Your task to perform on an android device: Open the calendar app, open the side menu, and click the "Day" option Image 0: 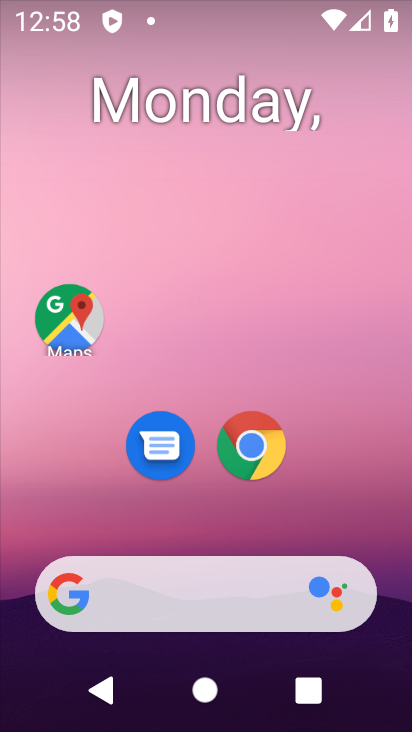
Step 0: drag from (400, 593) to (348, 186)
Your task to perform on an android device: Open the calendar app, open the side menu, and click the "Day" option Image 1: 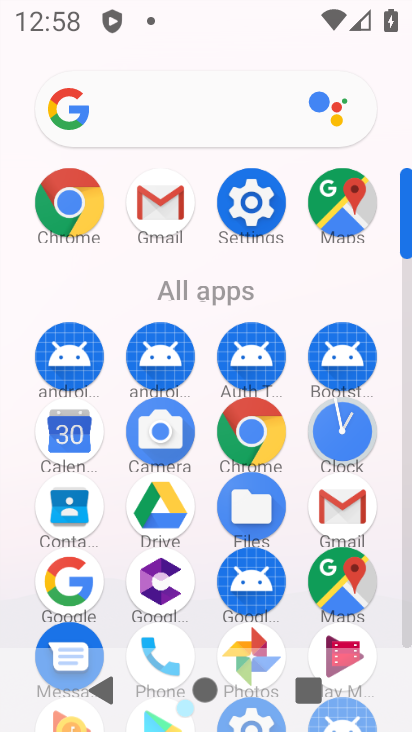
Step 1: click (66, 426)
Your task to perform on an android device: Open the calendar app, open the side menu, and click the "Day" option Image 2: 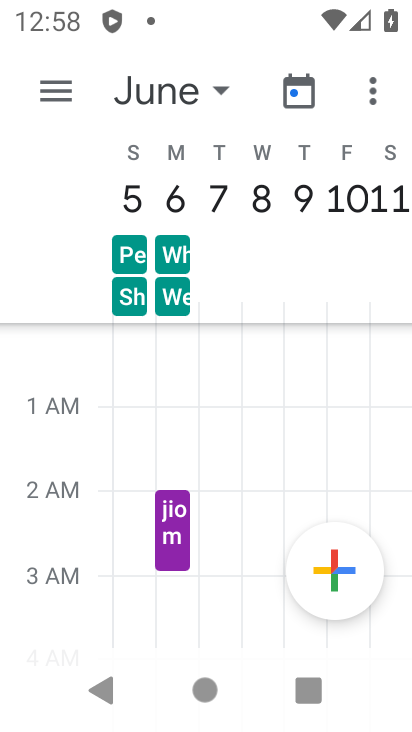
Step 2: click (52, 93)
Your task to perform on an android device: Open the calendar app, open the side menu, and click the "Day" option Image 3: 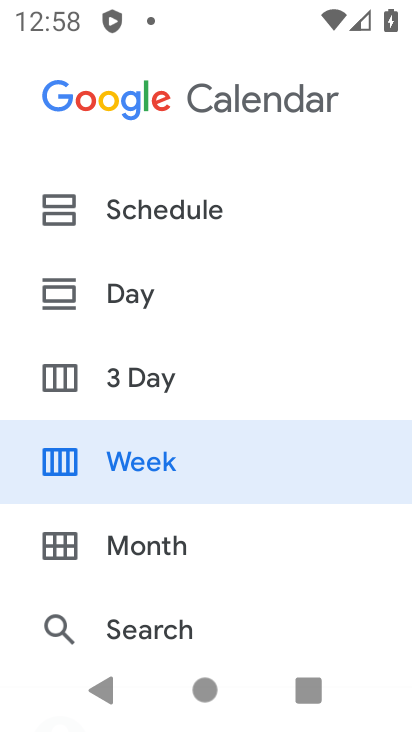
Step 3: click (147, 304)
Your task to perform on an android device: Open the calendar app, open the side menu, and click the "Day" option Image 4: 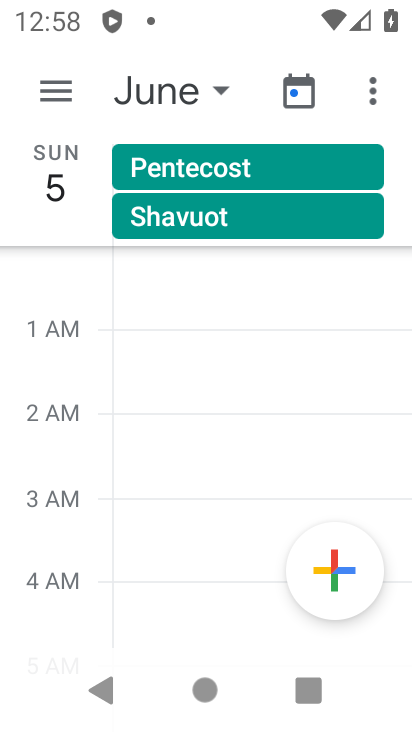
Step 4: click (212, 91)
Your task to perform on an android device: Open the calendar app, open the side menu, and click the "Day" option Image 5: 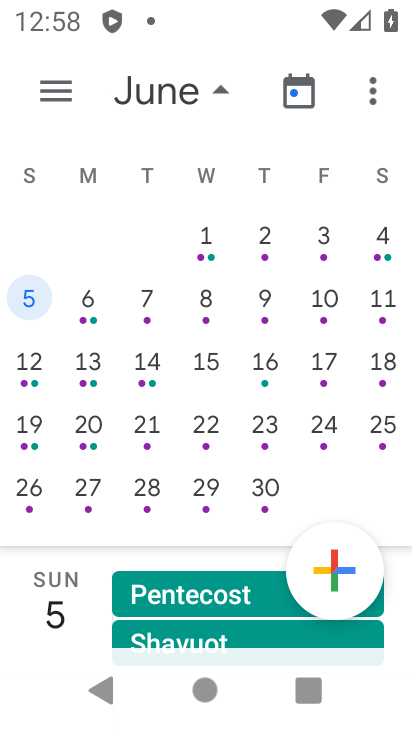
Step 5: drag from (67, 322) to (364, 362)
Your task to perform on an android device: Open the calendar app, open the side menu, and click the "Day" option Image 6: 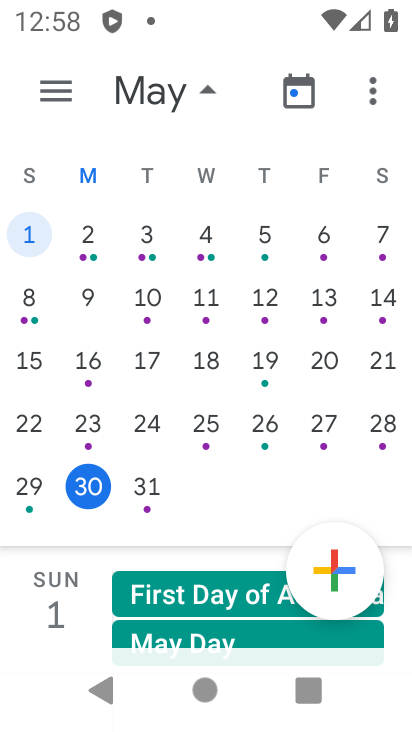
Step 6: click (95, 487)
Your task to perform on an android device: Open the calendar app, open the side menu, and click the "Day" option Image 7: 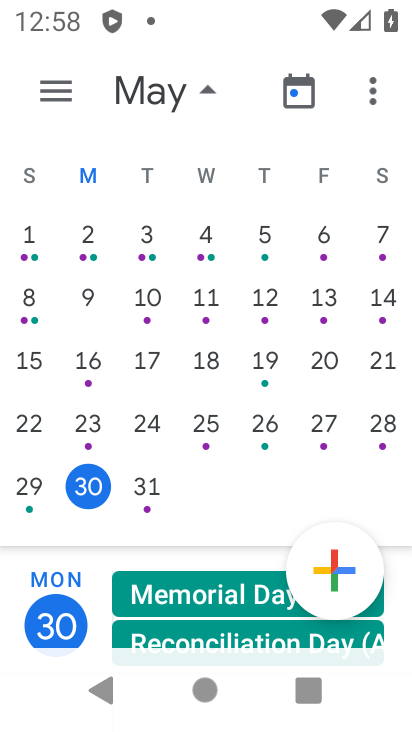
Step 7: task complete